Your task to perform on an android device: Go to settings Image 0: 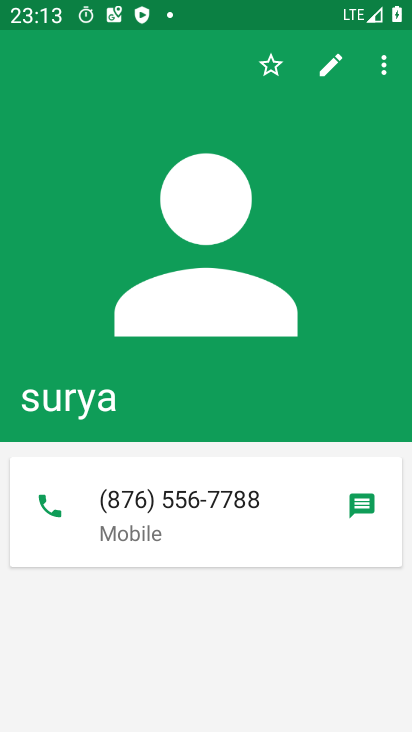
Step 0: press home button
Your task to perform on an android device: Go to settings Image 1: 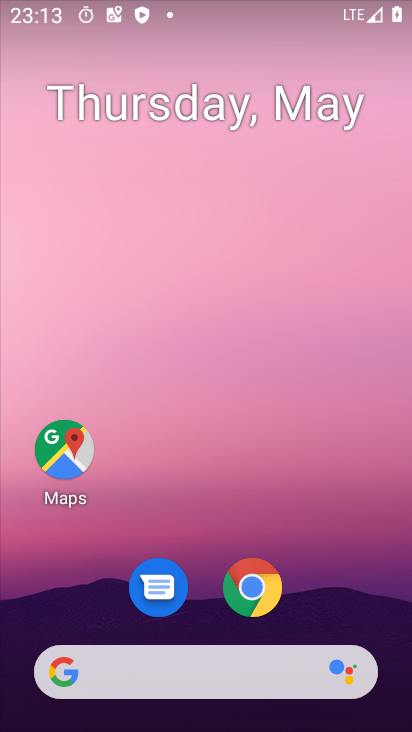
Step 1: drag from (348, 627) to (312, 13)
Your task to perform on an android device: Go to settings Image 2: 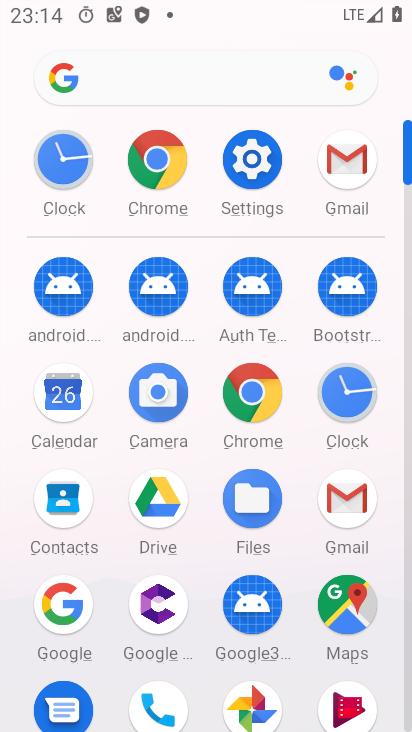
Step 2: click (258, 167)
Your task to perform on an android device: Go to settings Image 3: 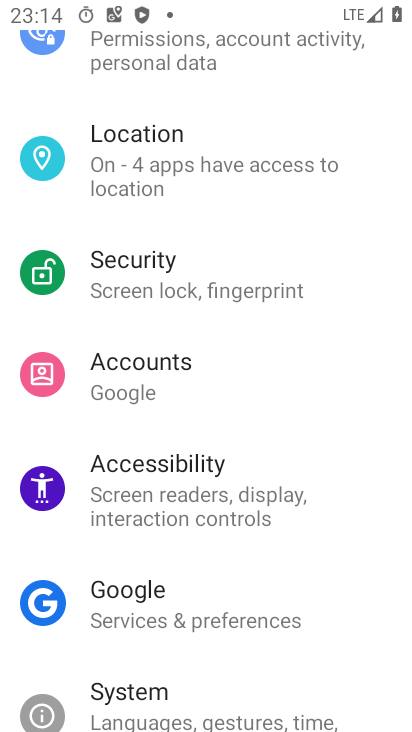
Step 3: task complete